Your task to perform on an android device: change keyboard looks Image 0: 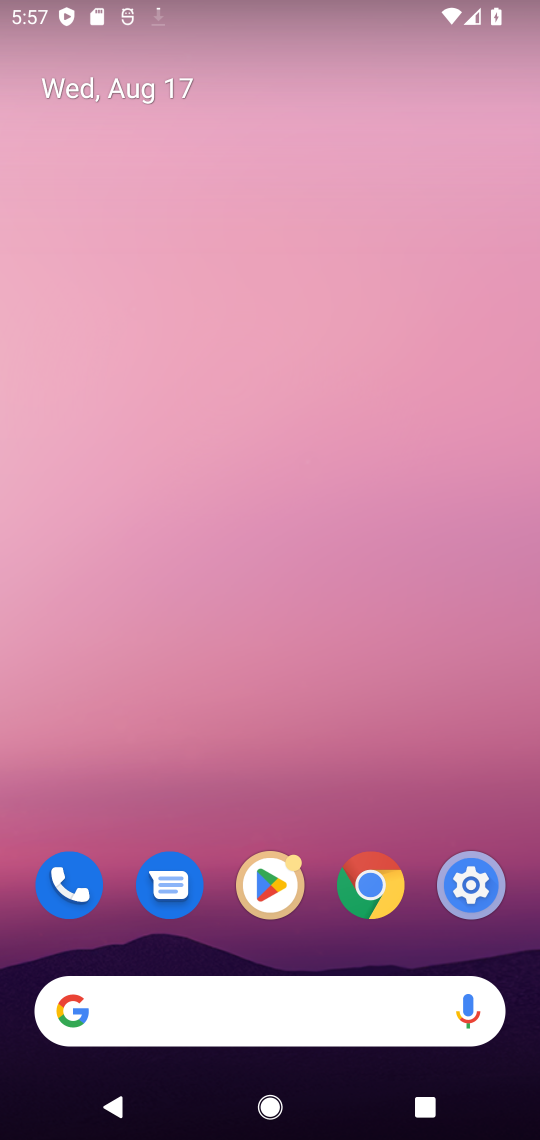
Step 0: drag from (355, 772) to (271, 12)
Your task to perform on an android device: change keyboard looks Image 1: 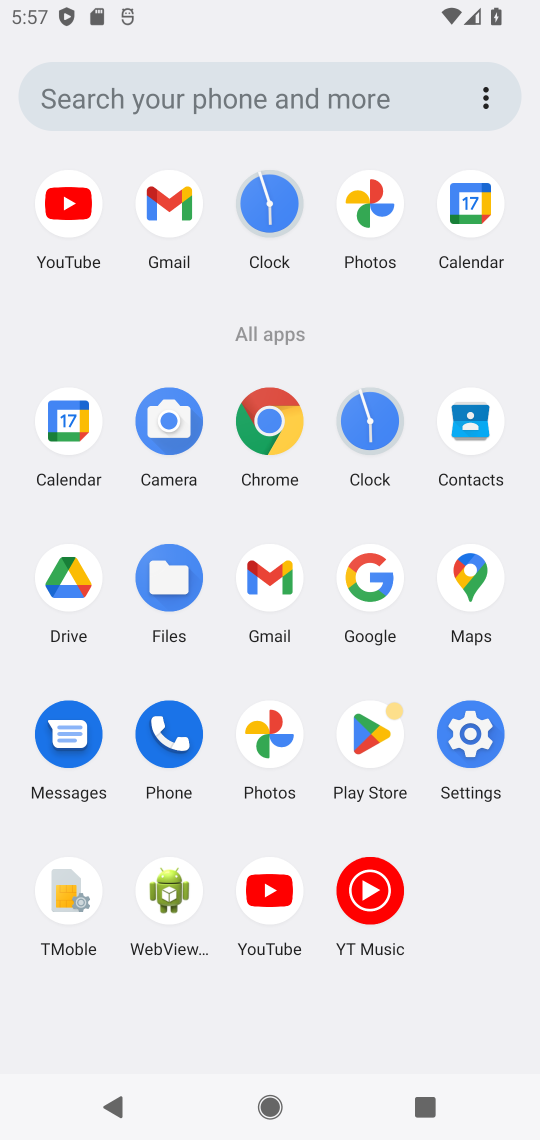
Step 1: click (490, 750)
Your task to perform on an android device: change keyboard looks Image 2: 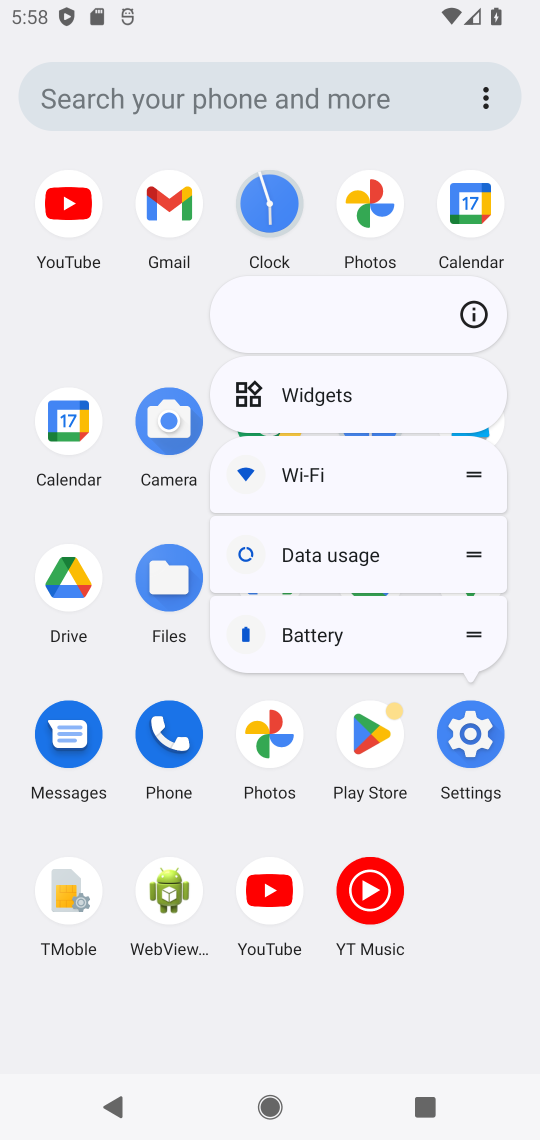
Step 2: click (477, 733)
Your task to perform on an android device: change keyboard looks Image 3: 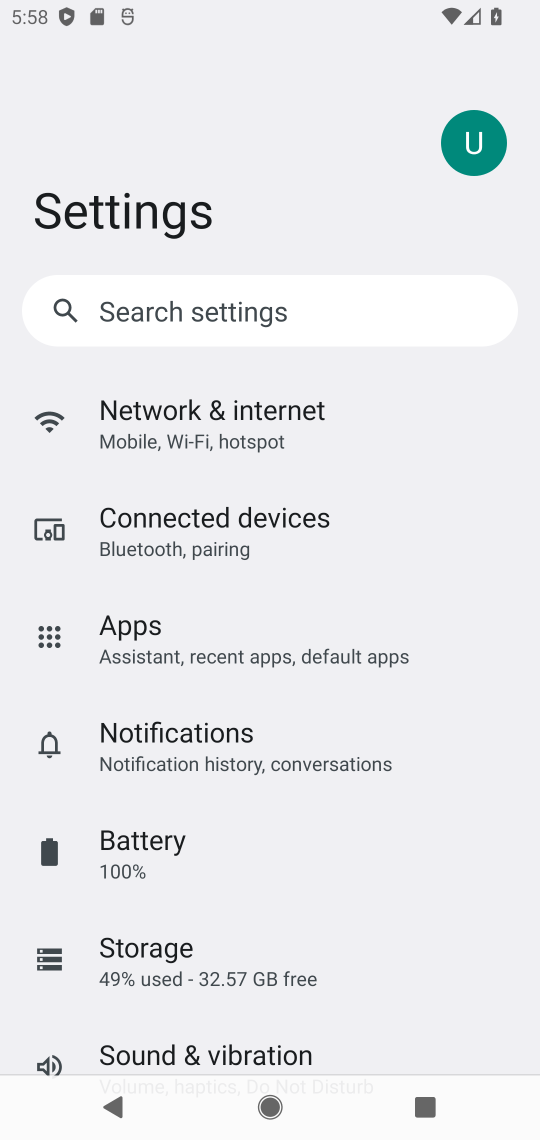
Step 3: drag from (361, 844) to (281, 70)
Your task to perform on an android device: change keyboard looks Image 4: 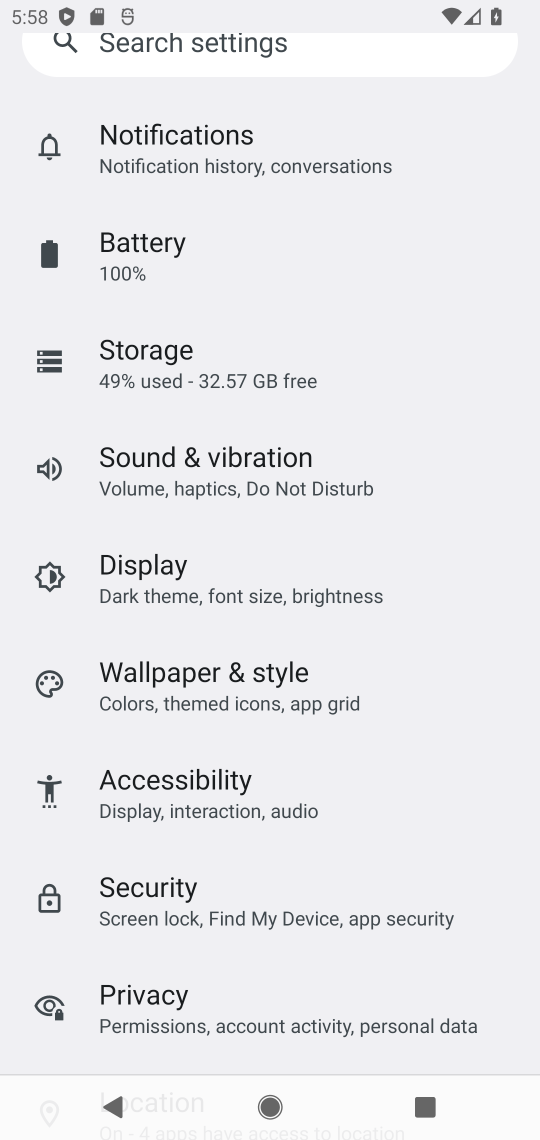
Step 4: drag from (206, 946) to (274, 252)
Your task to perform on an android device: change keyboard looks Image 5: 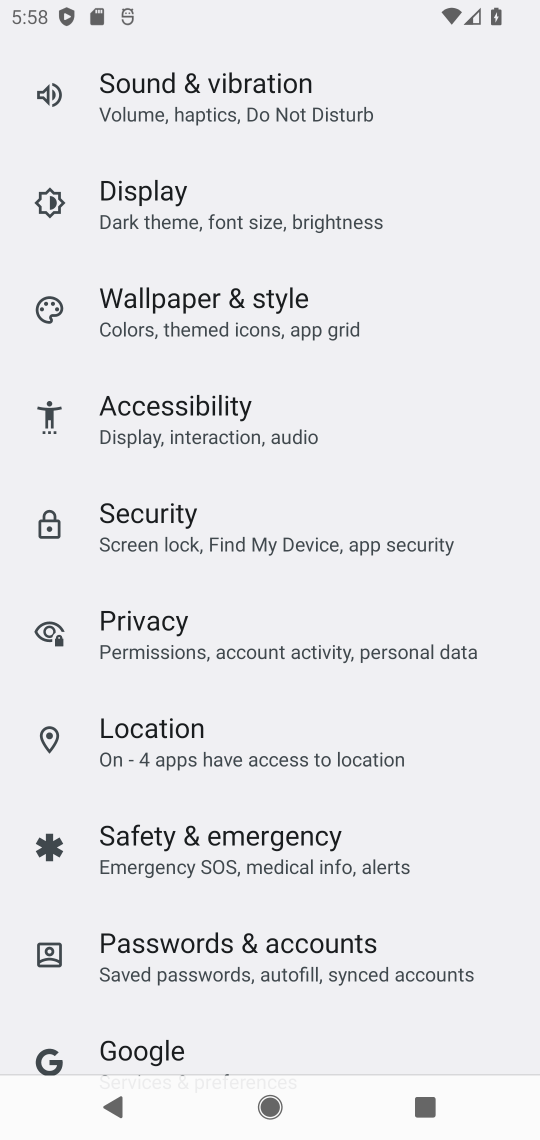
Step 5: drag from (224, 733) to (276, 242)
Your task to perform on an android device: change keyboard looks Image 6: 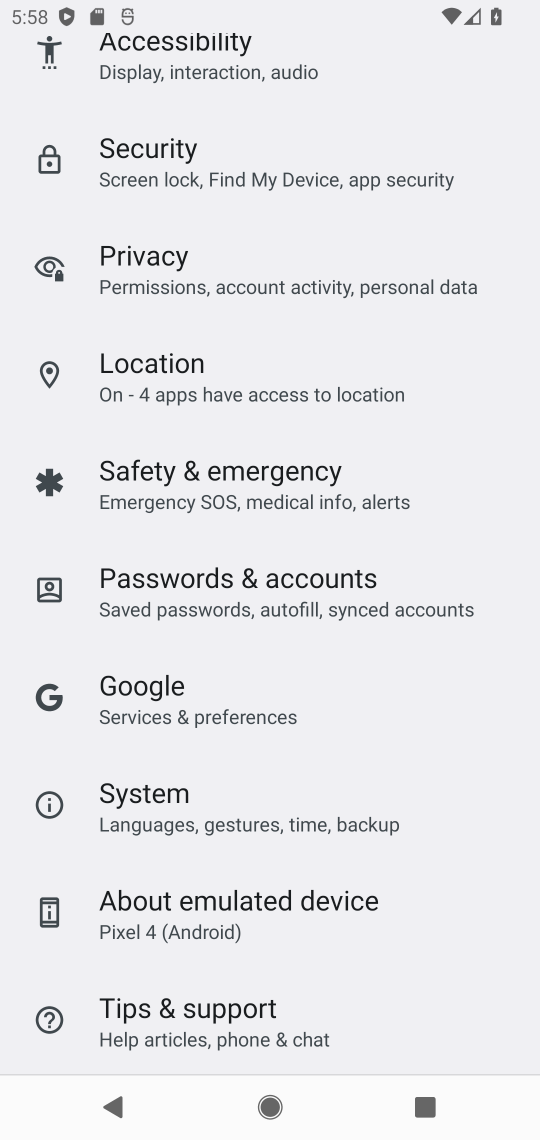
Step 6: click (218, 829)
Your task to perform on an android device: change keyboard looks Image 7: 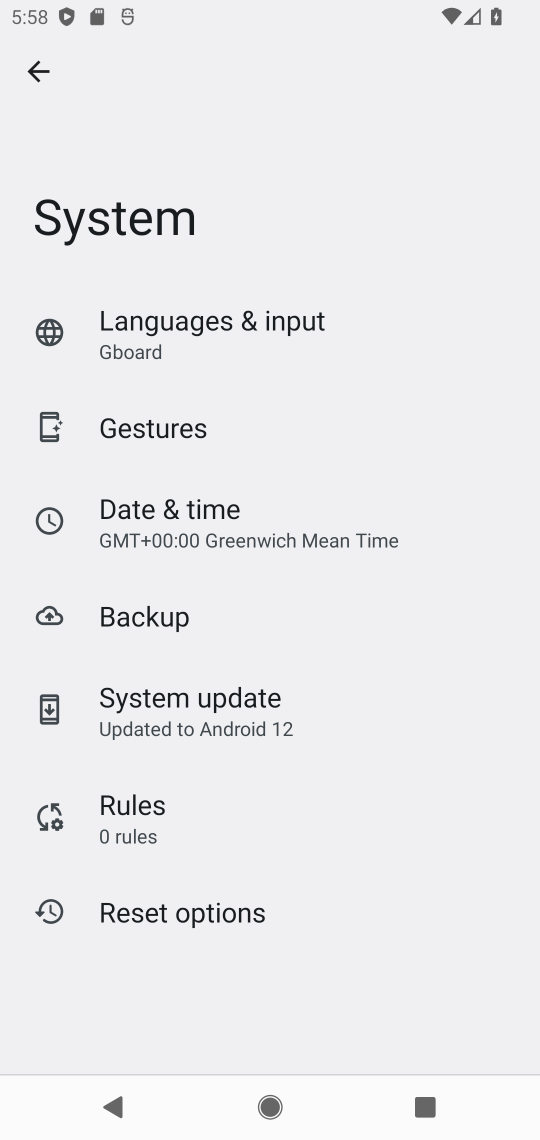
Step 7: click (126, 337)
Your task to perform on an android device: change keyboard looks Image 8: 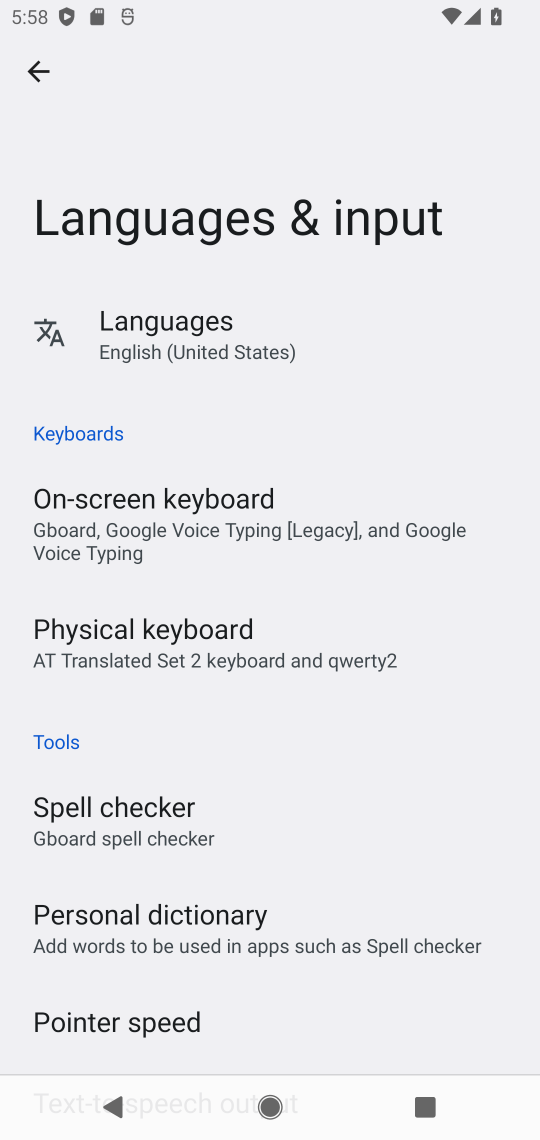
Step 8: click (170, 502)
Your task to perform on an android device: change keyboard looks Image 9: 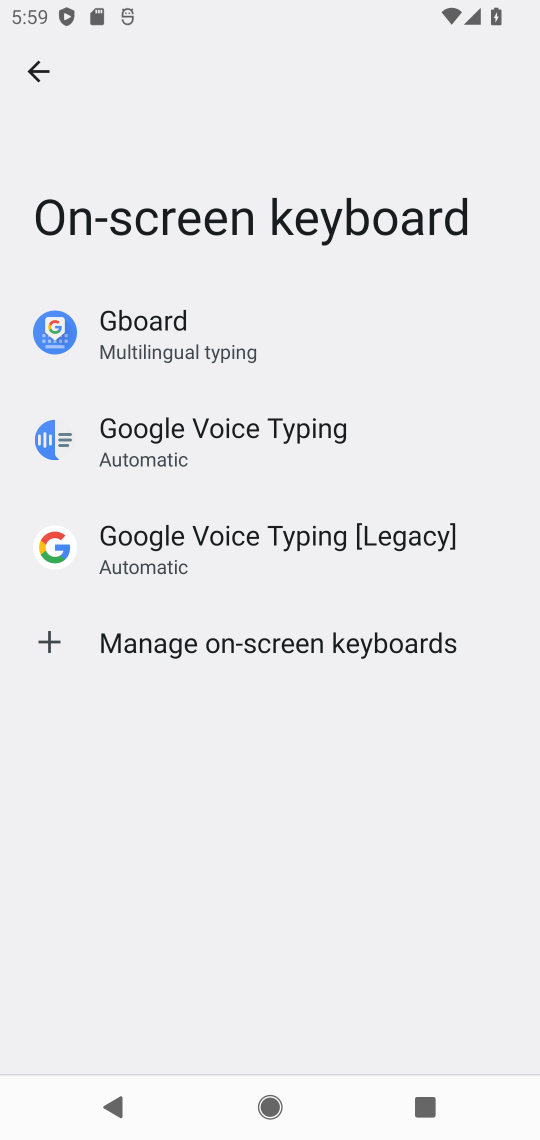
Step 9: click (178, 327)
Your task to perform on an android device: change keyboard looks Image 10: 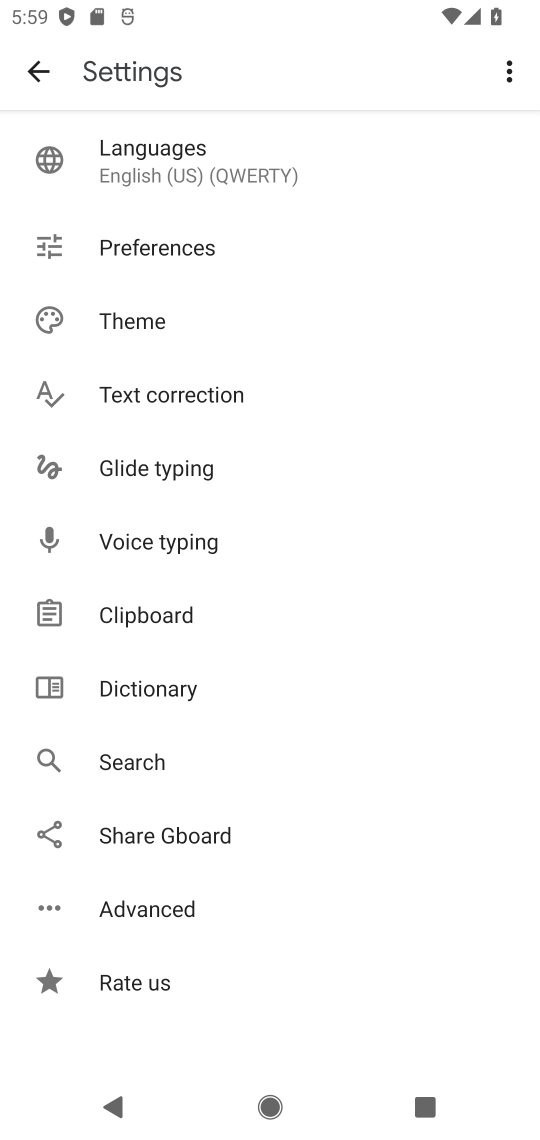
Step 10: click (117, 311)
Your task to perform on an android device: change keyboard looks Image 11: 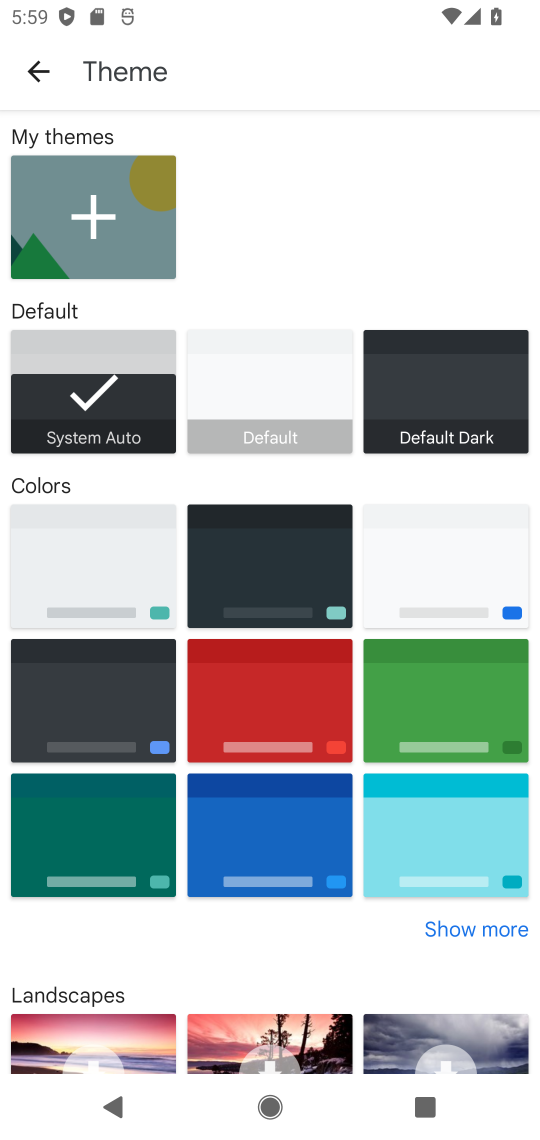
Step 11: click (463, 366)
Your task to perform on an android device: change keyboard looks Image 12: 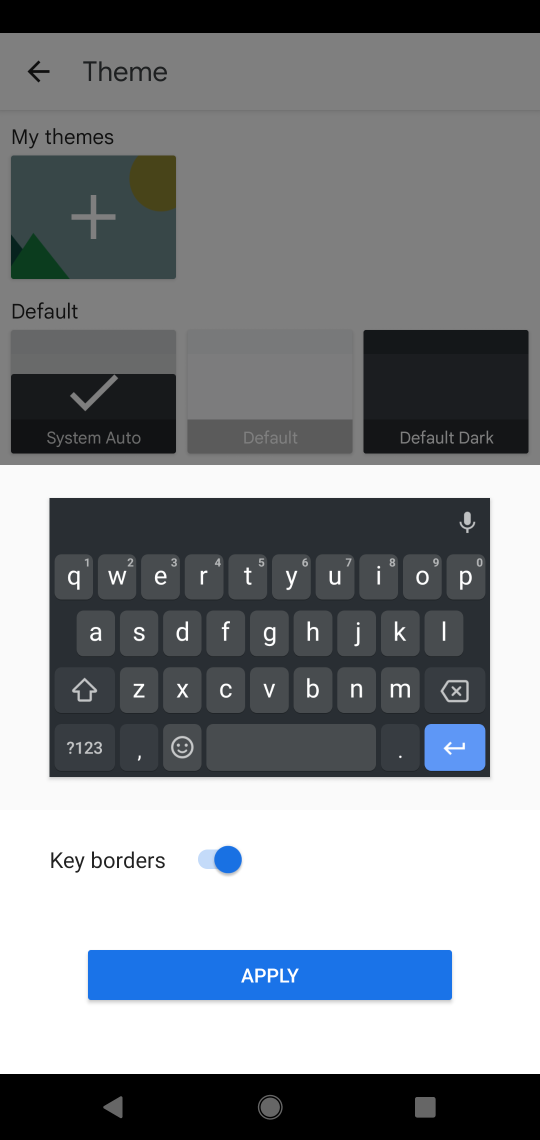
Step 12: click (244, 959)
Your task to perform on an android device: change keyboard looks Image 13: 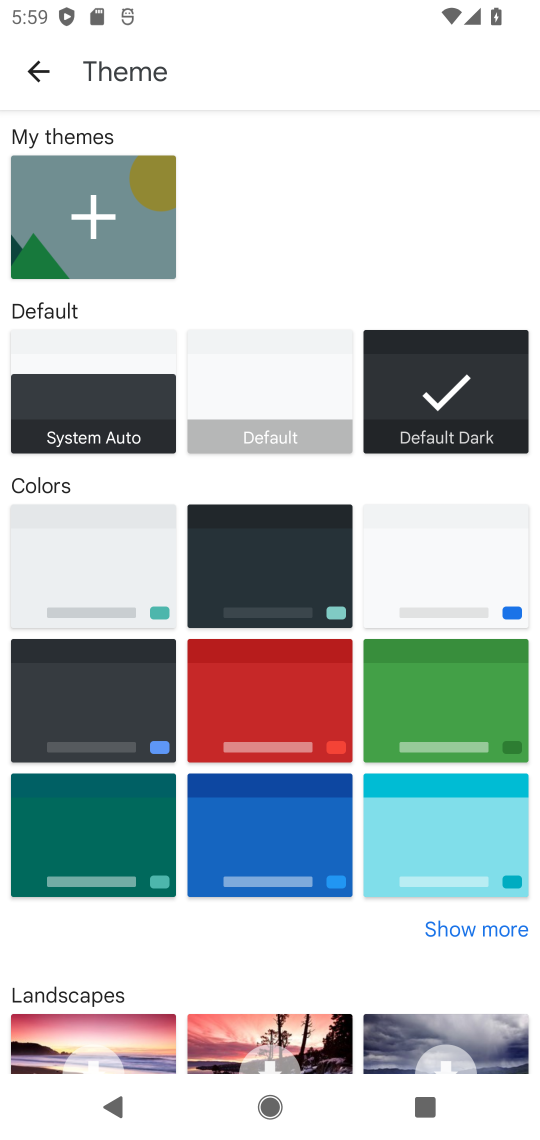
Step 13: task complete